Your task to perform on an android device: open app "WhatsApp Messenger" Image 0: 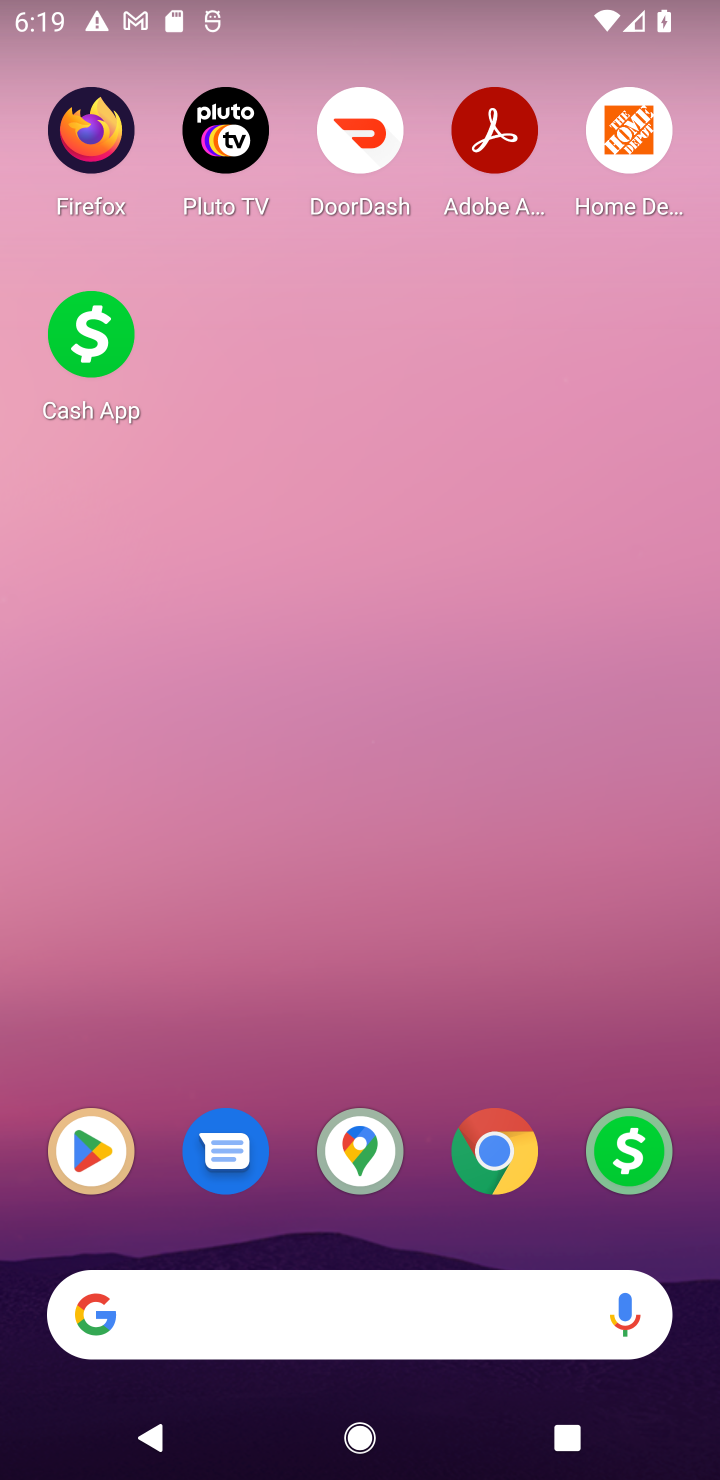
Step 0: drag from (543, 1340) to (391, 66)
Your task to perform on an android device: open app "WhatsApp Messenger" Image 1: 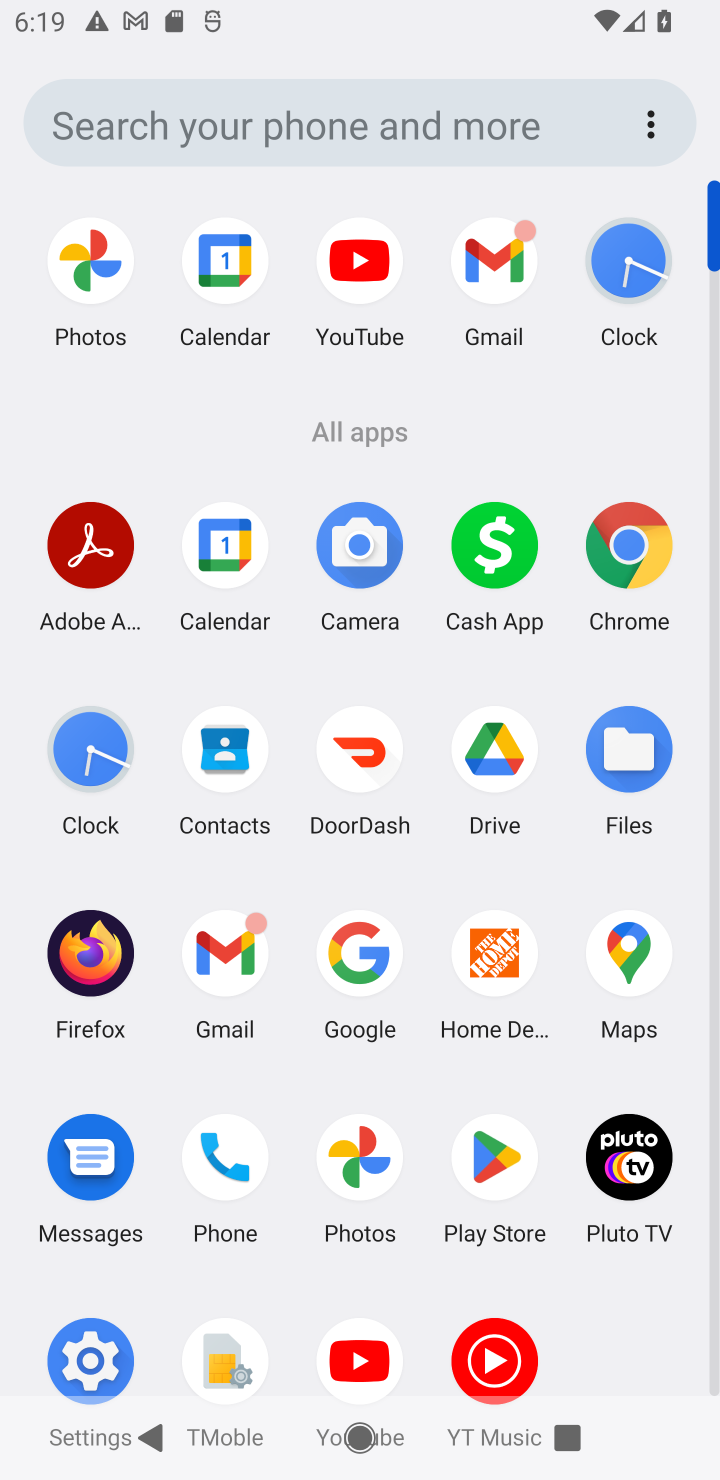
Step 1: click (517, 1172)
Your task to perform on an android device: open app "WhatsApp Messenger" Image 2: 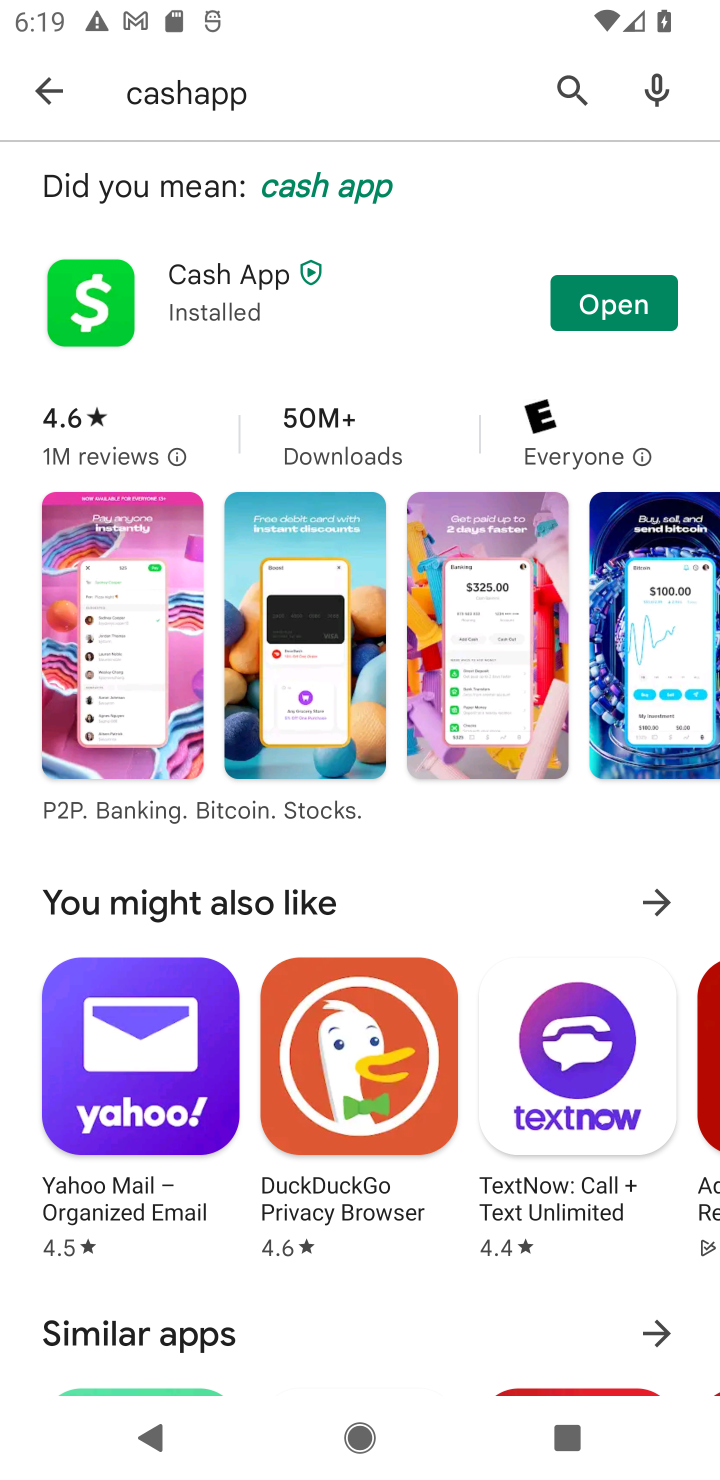
Step 2: click (585, 70)
Your task to perform on an android device: open app "WhatsApp Messenger" Image 3: 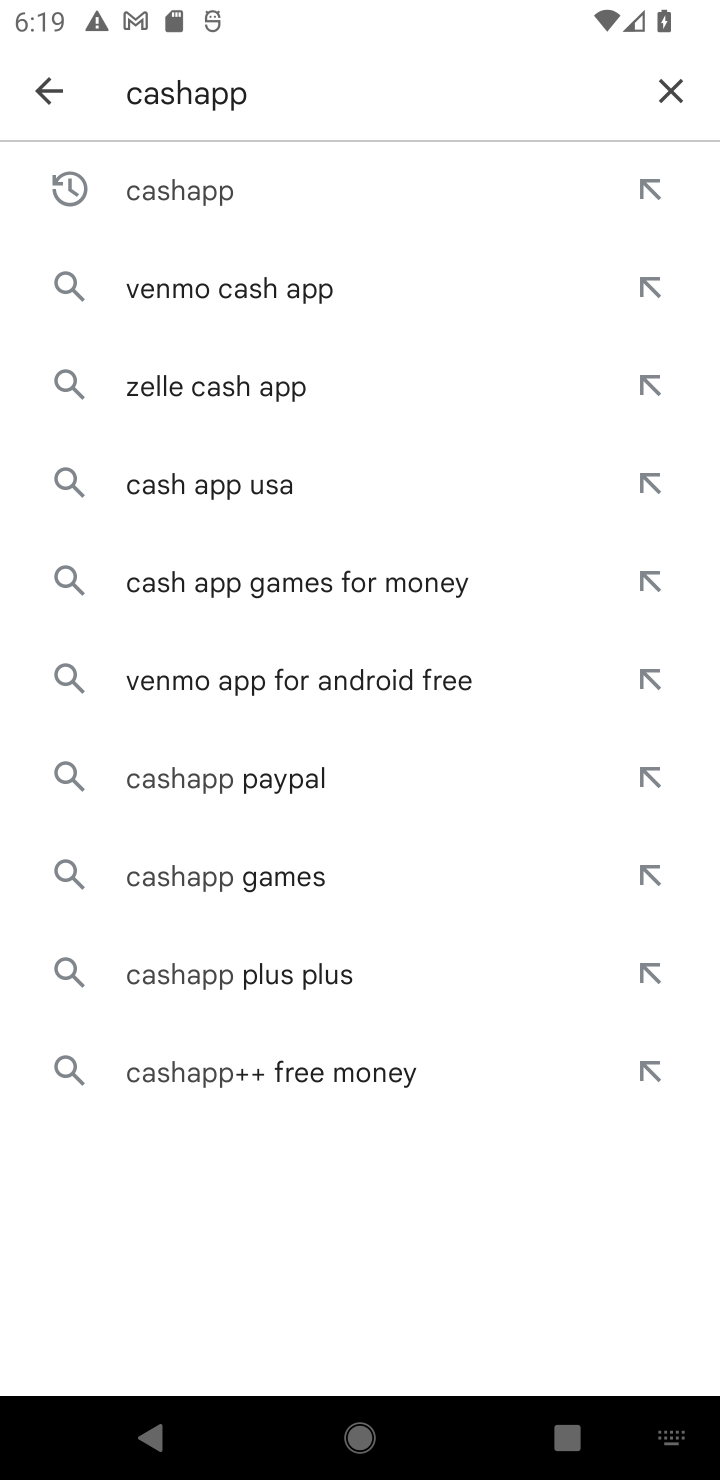
Step 3: click (671, 94)
Your task to perform on an android device: open app "WhatsApp Messenger" Image 4: 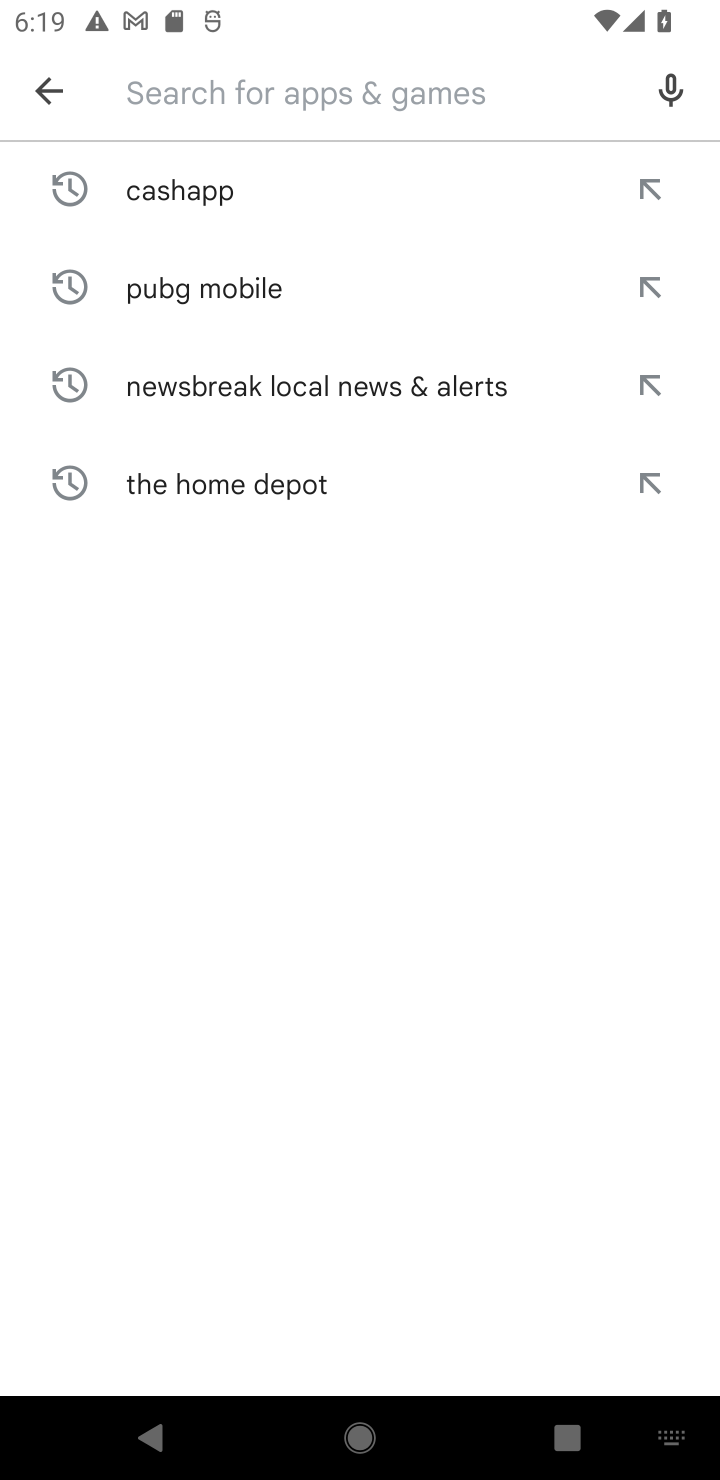
Step 4: type "whatsapp messenger"
Your task to perform on an android device: open app "WhatsApp Messenger" Image 5: 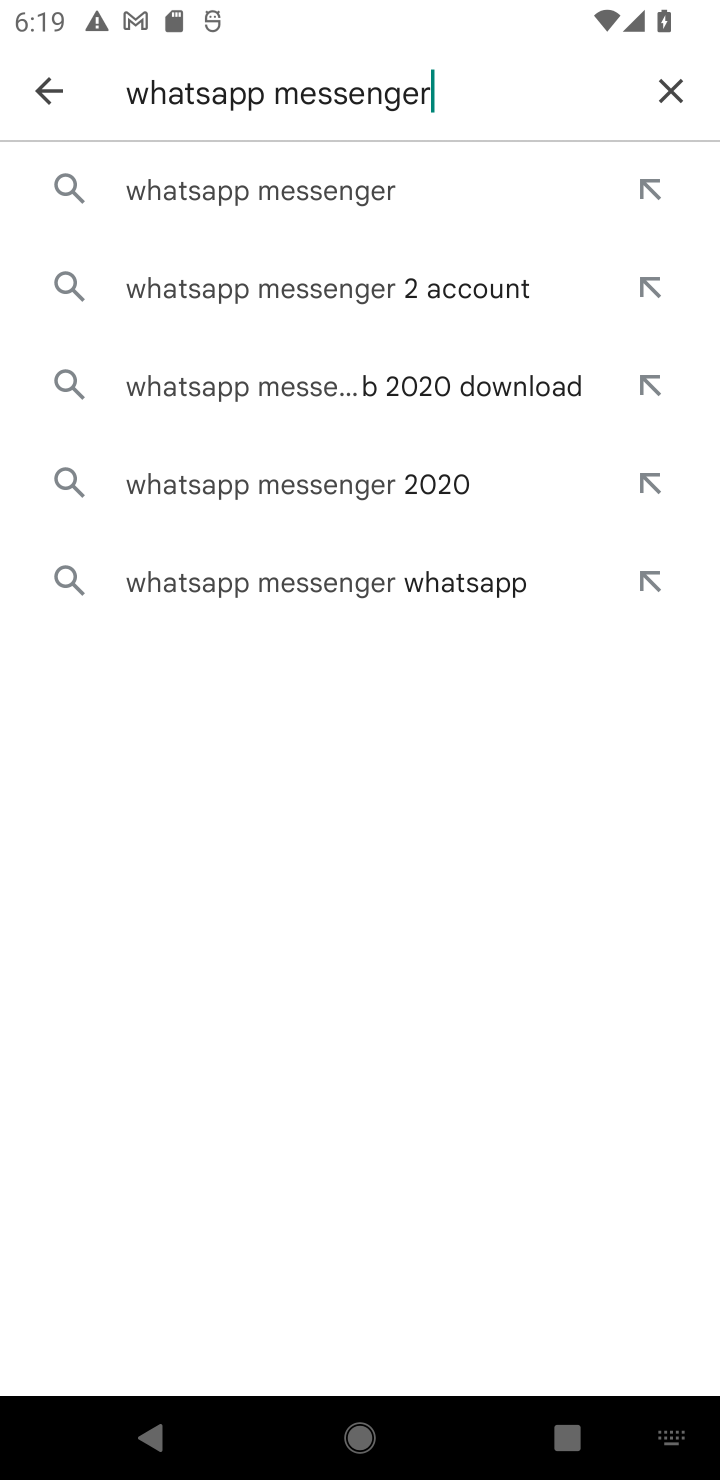
Step 5: click (358, 204)
Your task to perform on an android device: open app "WhatsApp Messenger" Image 6: 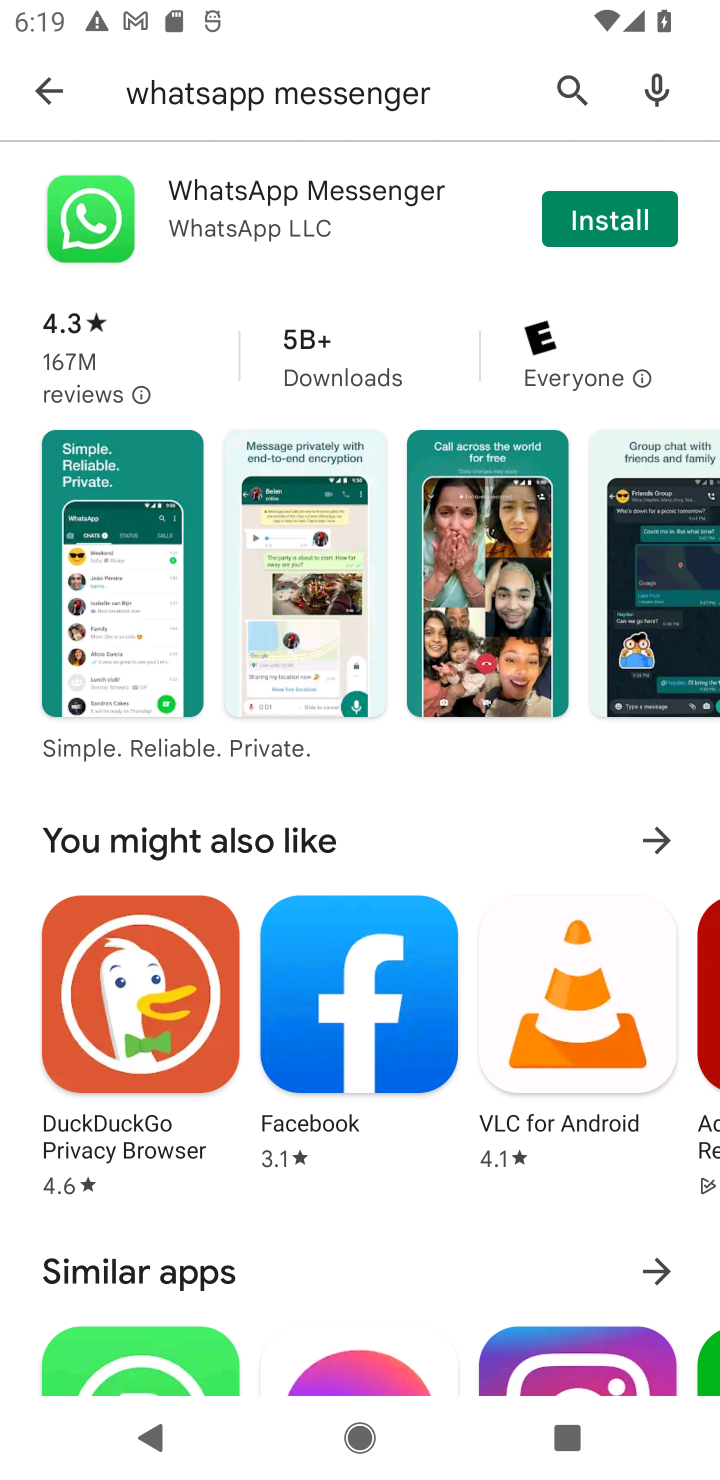
Step 6: task complete